Your task to perform on an android device: What's on my calendar tomorrow? Image 0: 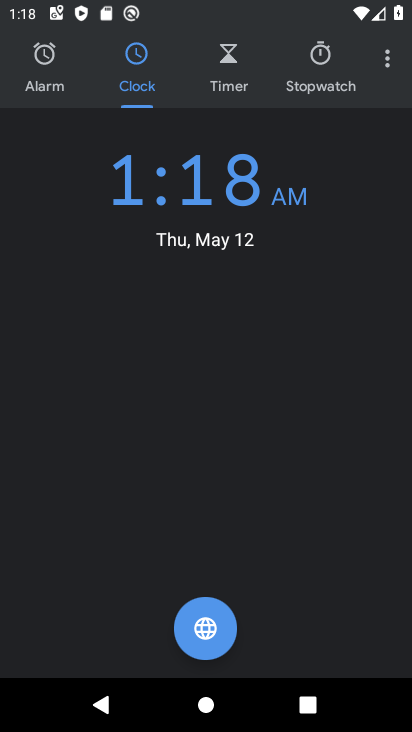
Step 0: press home button
Your task to perform on an android device: What's on my calendar tomorrow? Image 1: 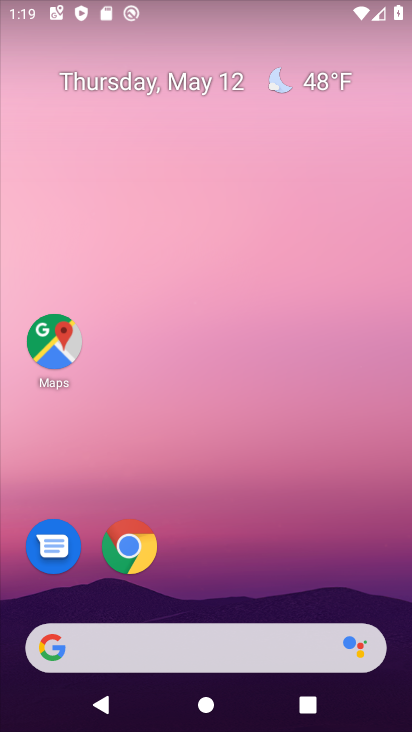
Step 1: drag from (222, 652) to (315, 139)
Your task to perform on an android device: What's on my calendar tomorrow? Image 2: 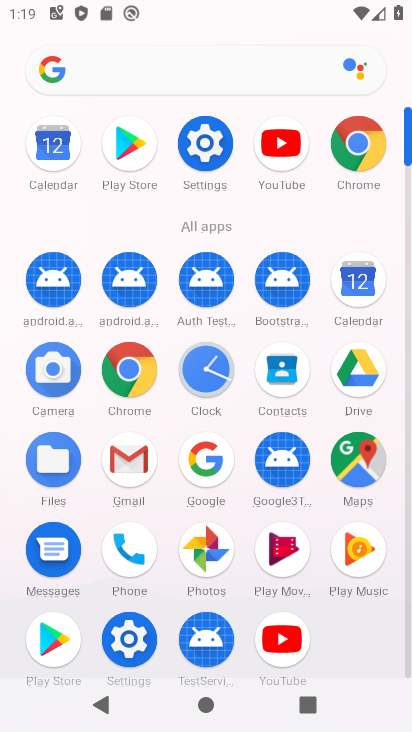
Step 2: click (354, 293)
Your task to perform on an android device: What's on my calendar tomorrow? Image 3: 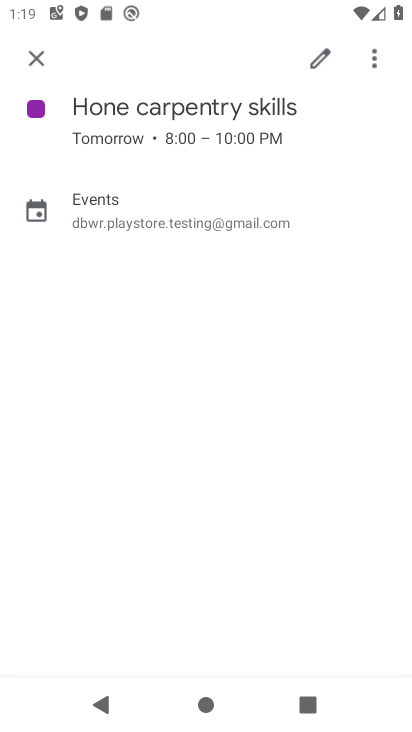
Step 3: click (33, 60)
Your task to perform on an android device: What's on my calendar tomorrow? Image 4: 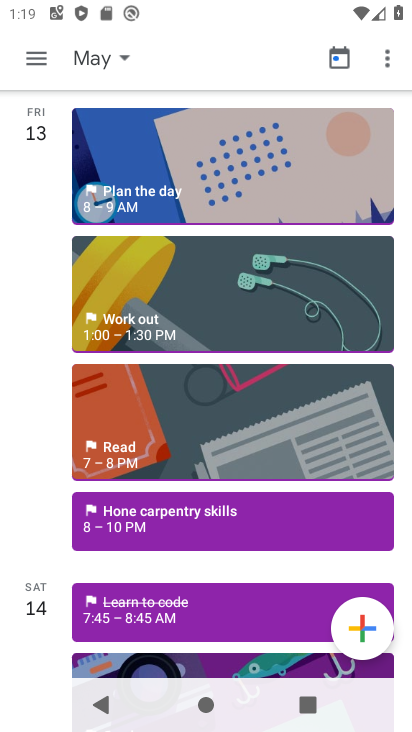
Step 4: task complete